Your task to perform on an android device: Open Wikipedia Image 0: 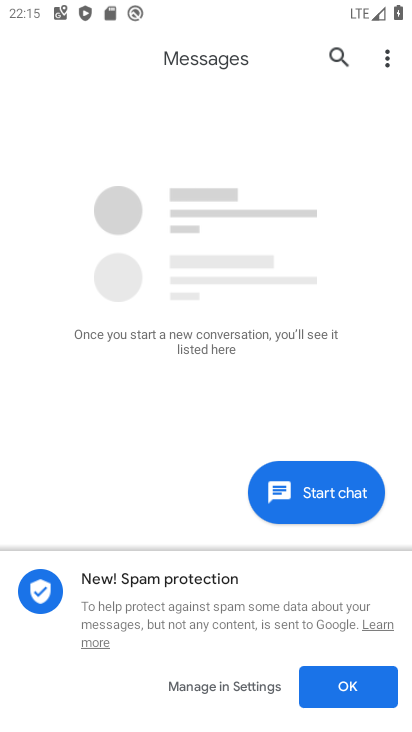
Step 0: press home button
Your task to perform on an android device: Open Wikipedia Image 1: 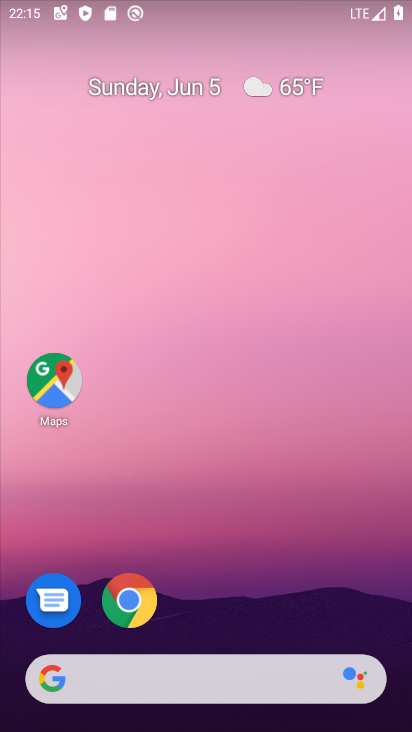
Step 1: drag from (330, 574) to (182, 179)
Your task to perform on an android device: Open Wikipedia Image 2: 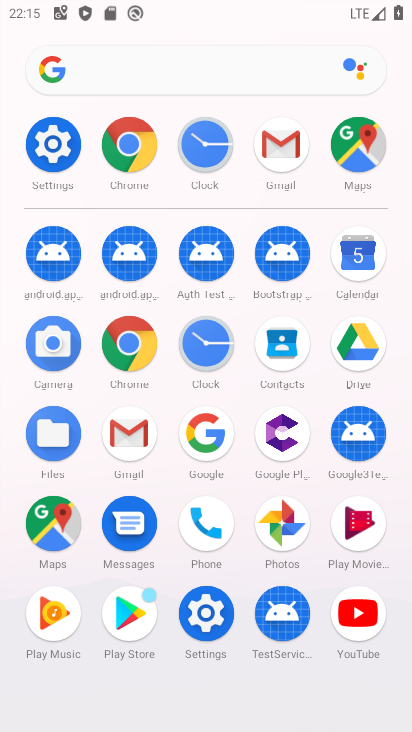
Step 2: click (127, 144)
Your task to perform on an android device: Open Wikipedia Image 3: 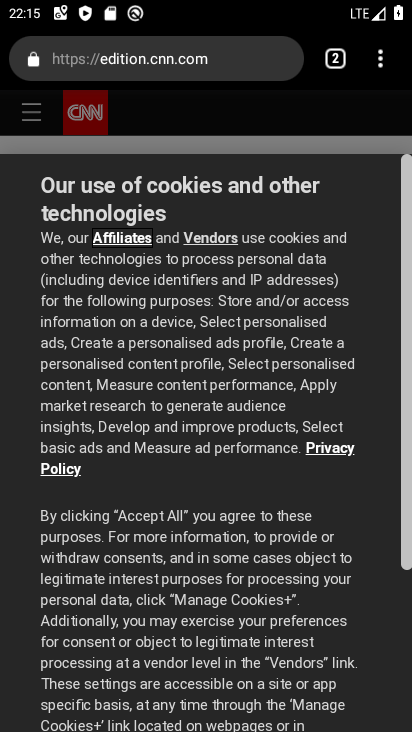
Step 3: click (133, 59)
Your task to perform on an android device: Open Wikipedia Image 4: 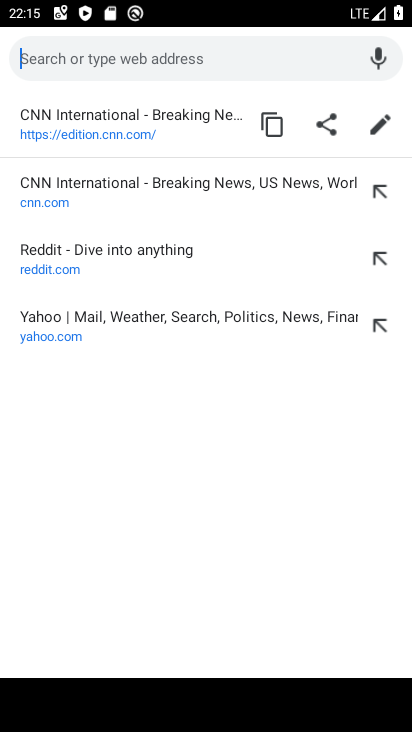
Step 4: type "wikipedia"
Your task to perform on an android device: Open Wikipedia Image 5: 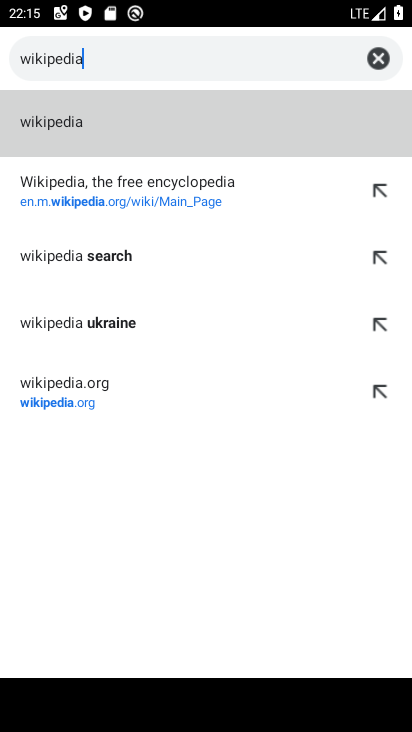
Step 5: click (54, 121)
Your task to perform on an android device: Open Wikipedia Image 6: 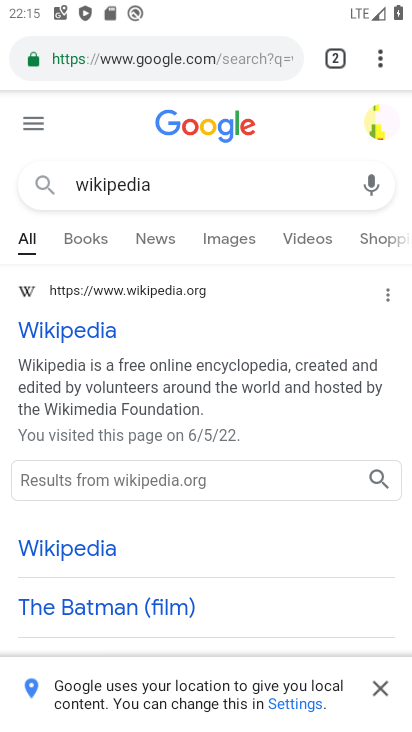
Step 6: click (55, 330)
Your task to perform on an android device: Open Wikipedia Image 7: 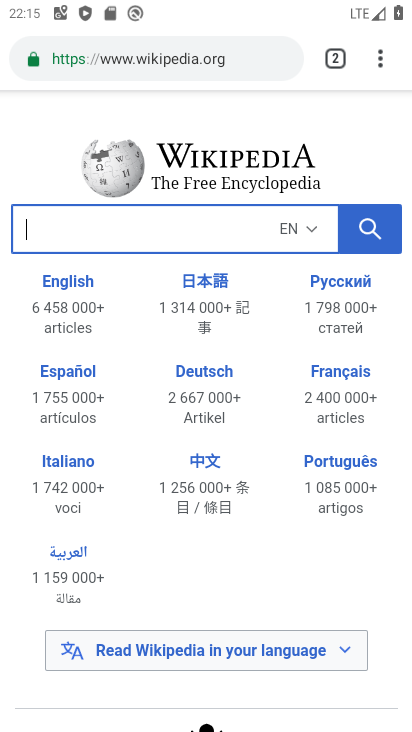
Step 7: task complete